Your task to perform on an android device: turn on improve location accuracy Image 0: 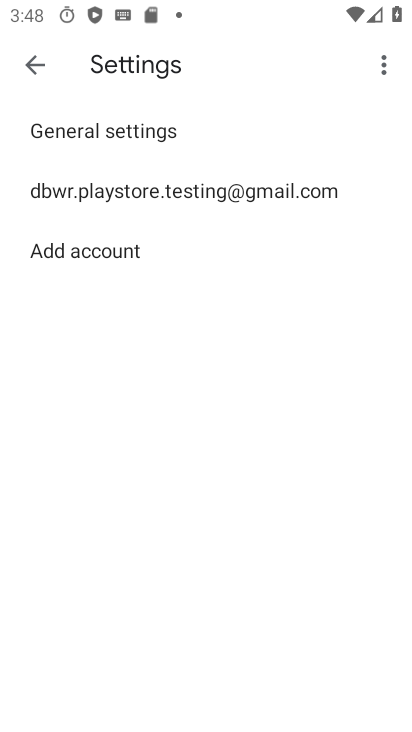
Step 0: press home button
Your task to perform on an android device: turn on improve location accuracy Image 1: 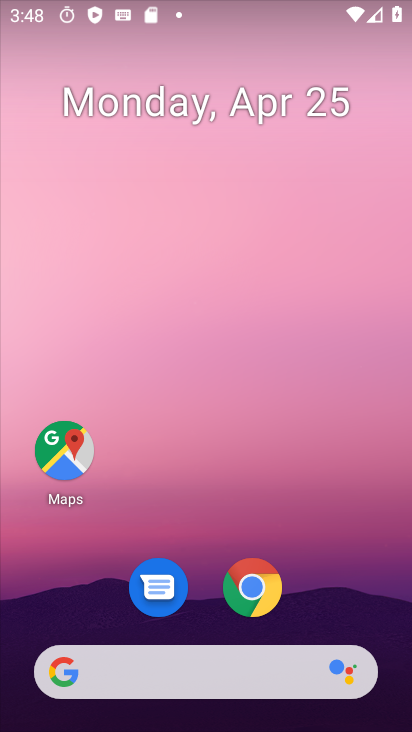
Step 1: drag from (370, 404) to (293, 33)
Your task to perform on an android device: turn on improve location accuracy Image 2: 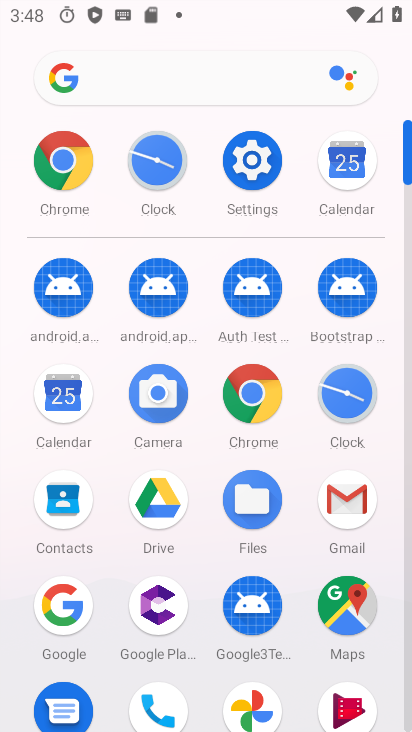
Step 2: click (260, 158)
Your task to perform on an android device: turn on improve location accuracy Image 3: 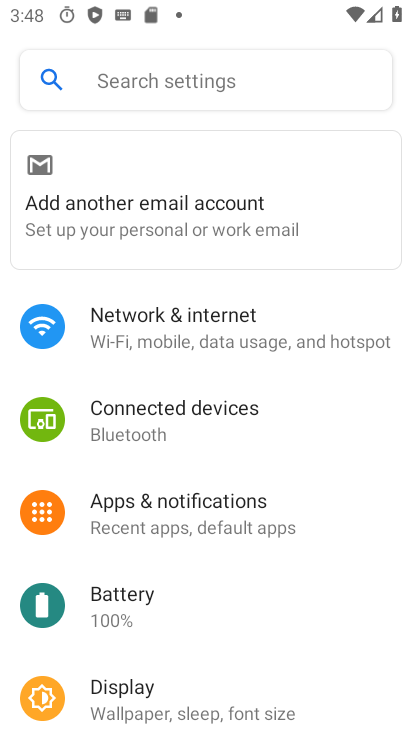
Step 3: drag from (240, 609) to (306, 266)
Your task to perform on an android device: turn on improve location accuracy Image 4: 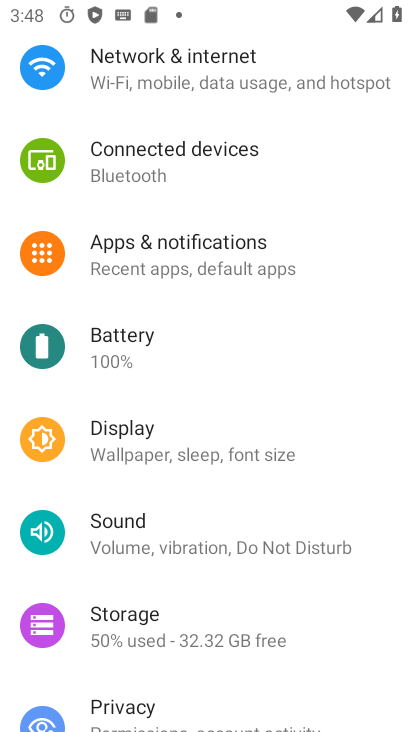
Step 4: drag from (216, 538) to (228, 158)
Your task to perform on an android device: turn on improve location accuracy Image 5: 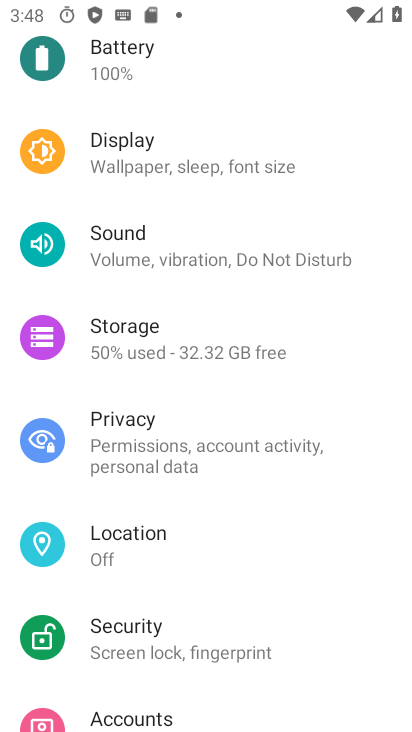
Step 5: click (155, 537)
Your task to perform on an android device: turn on improve location accuracy Image 6: 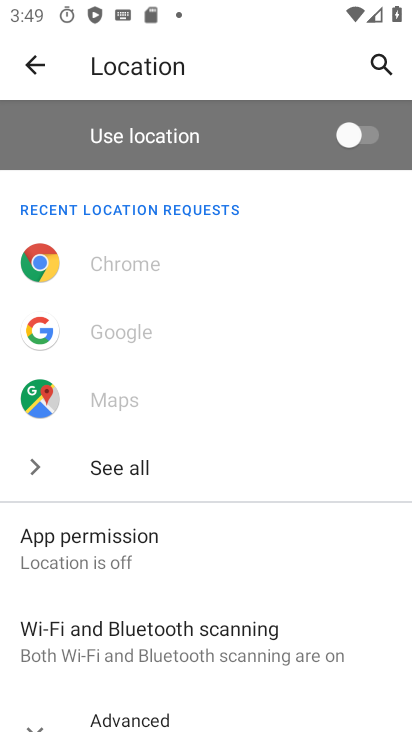
Step 6: drag from (363, 651) to (287, 149)
Your task to perform on an android device: turn on improve location accuracy Image 7: 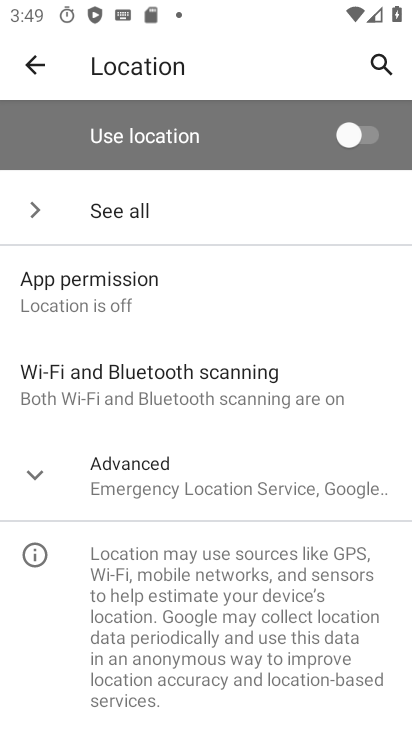
Step 7: click (168, 478)
Your task to perform on an android device: turn on improve location accuracy Image 8: 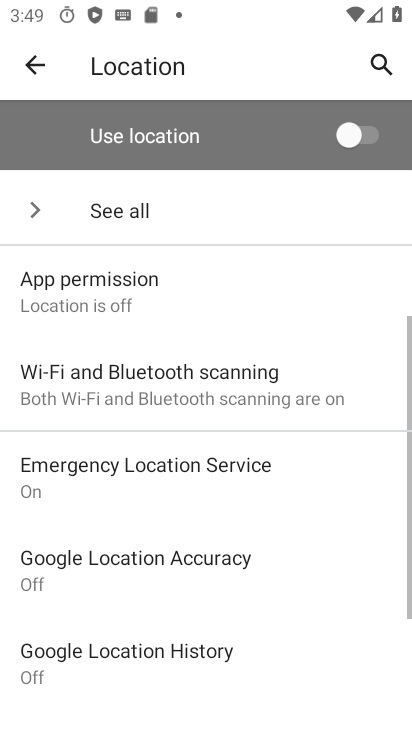
Step 8: drag from (375, 615) to (315, 291)
Your task to perform on an android device: turn on improve location accuracy Image 9: 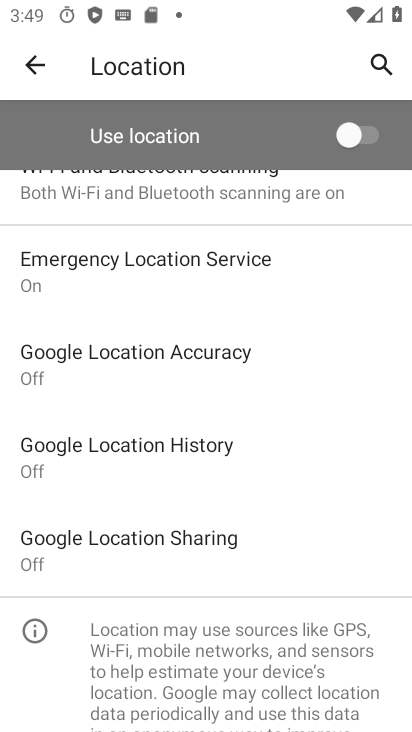
Step 9: click (167, 438)
Your task to perform on an android device: turn on improve location accuracy Image 10: 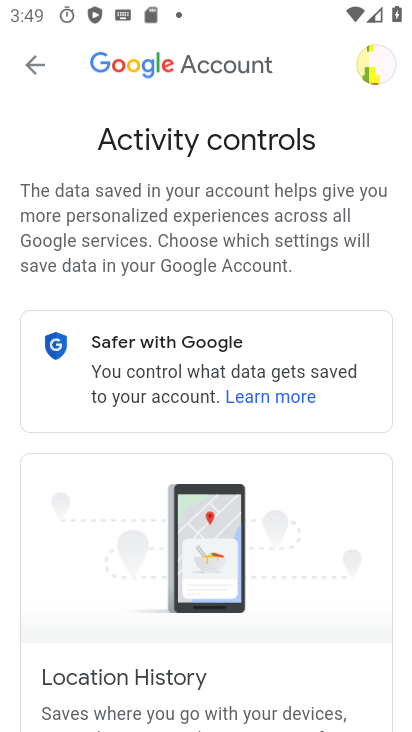
Step 10: task complete